Your task to perform on an android device: delete a single message in the gmail app Image 0: 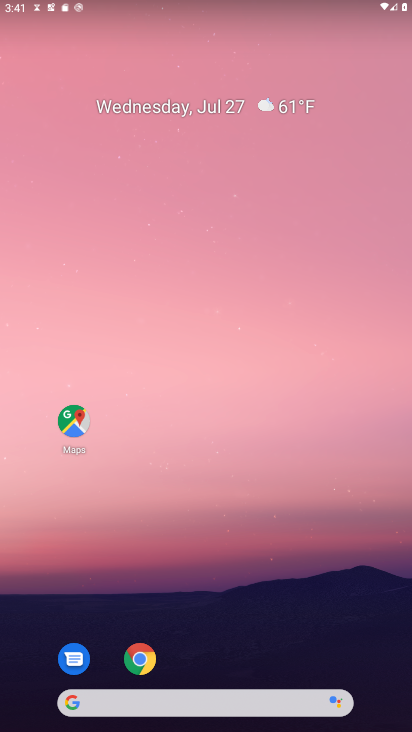
Step 0: drag from (248, 680) to (239, 1)
Your task to perform on an android device: delete a single message in the gmail app Image 1: 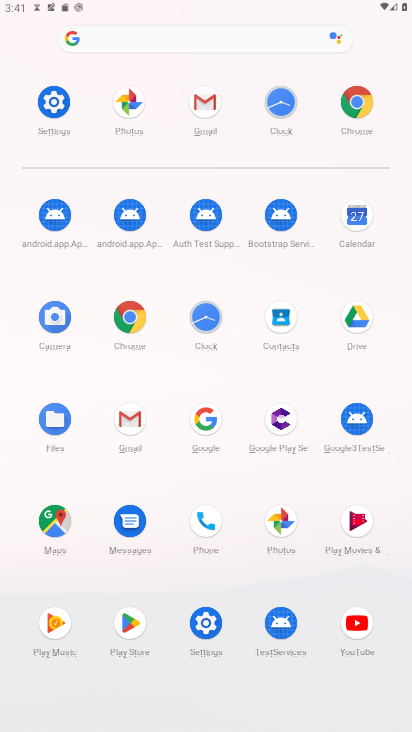
Step 1: click (124, 423)
Your task to perform on an android device: delete a single message in the gmail app Image 2: 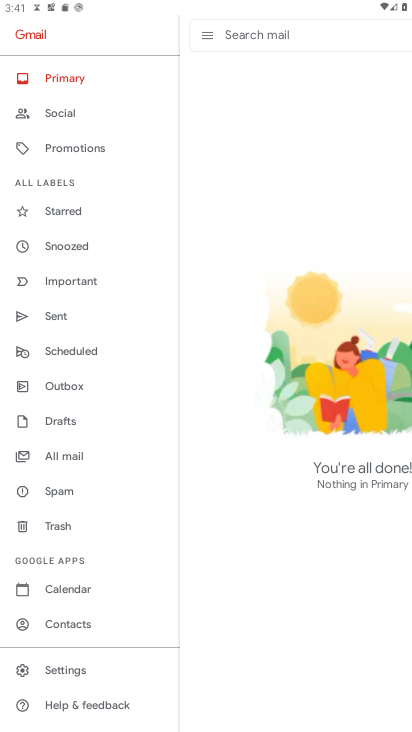
Step 2: click (78, 452)
Your task to perform on an android device: delete a single message in the gmail app Image 3: 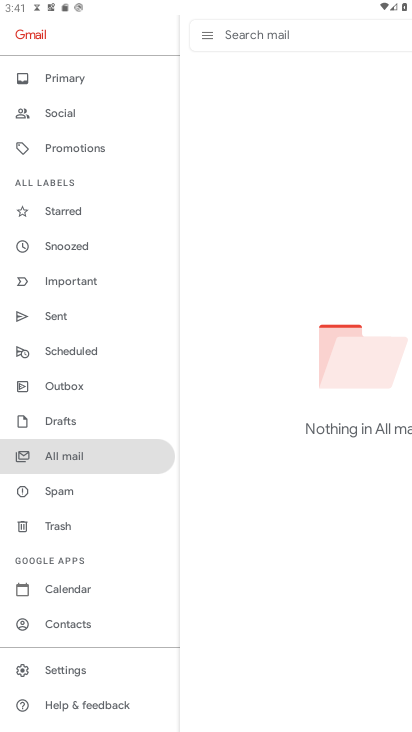
Step 3: task complete